Your task to perform on an android device: open sync settings in chrome Image 0: 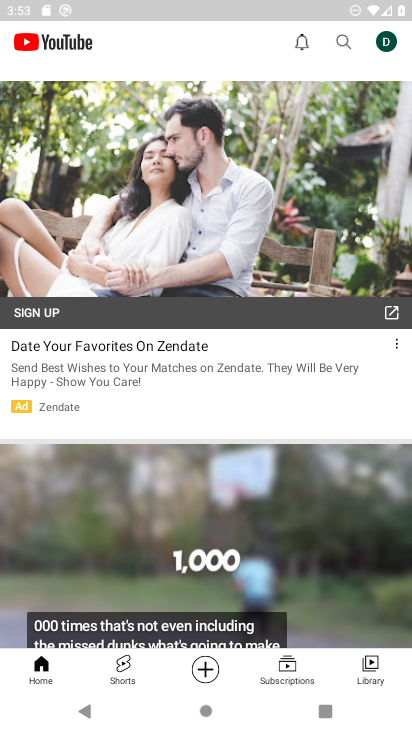
Step 0: press back button
Your task to perform on an android device: open sync settings in chrome Image 1: 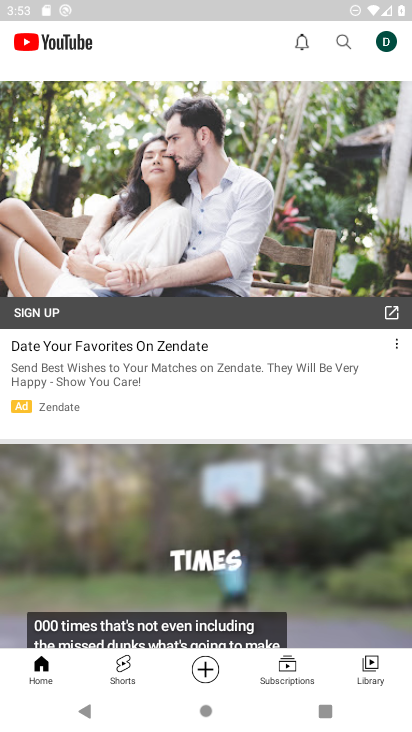
Step 1: press back button
Your task to perform on an android device: open sync settings in chrome Image 2: 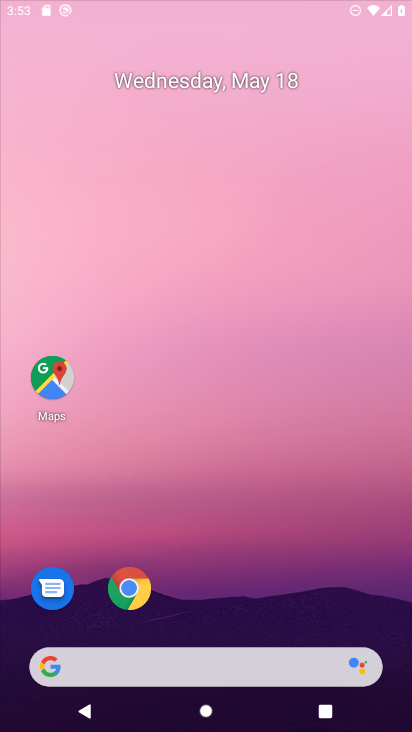
Step 2: press back button
Your task to perform on an android device: open sync settings in chrome Image 3: 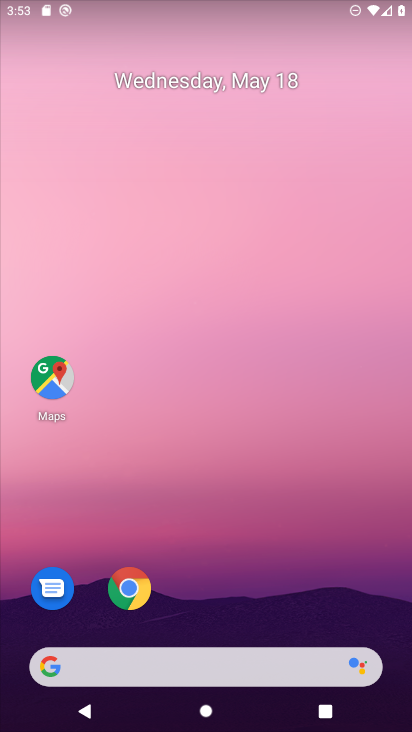
Step 3: click (142, 589)
Your task to perform on an android device: open sync settings in chrome Image 4: 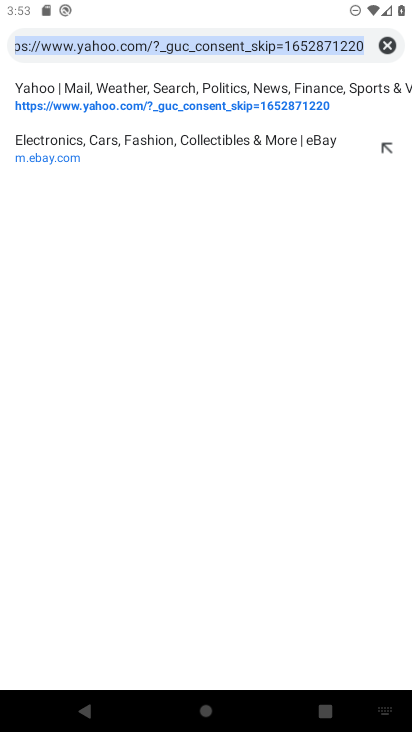
Step 4: click (386, 40)
Your task to perform on an android device: open sync settings in chrome Image 5: 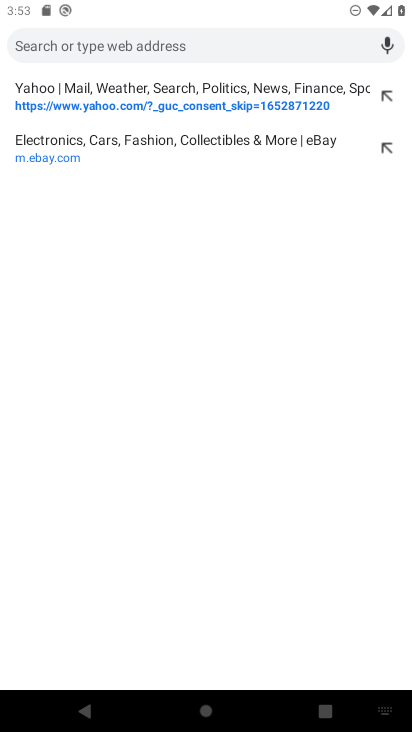
Step 5: click (386, 40)
Your task to perform on an android device: open sync settings in chrome Image 6: 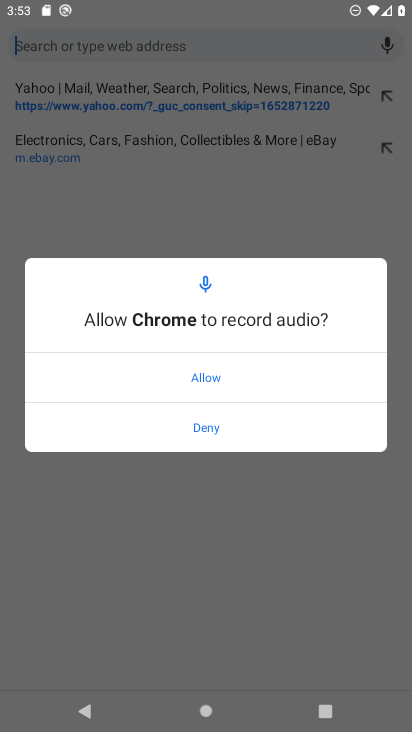
Step 6: click (76, 726)
Your task to perform on an android device: open sync settings in chrome Image 7: 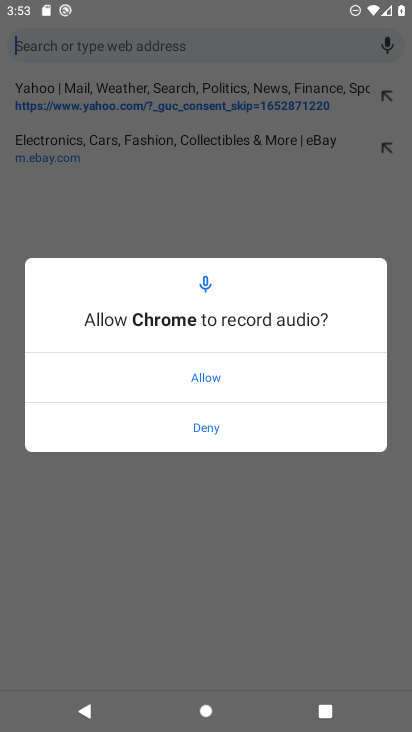
Step 7: click (58, 717)
Your task to perform on an android device: open sync settings in chrome Image 8: 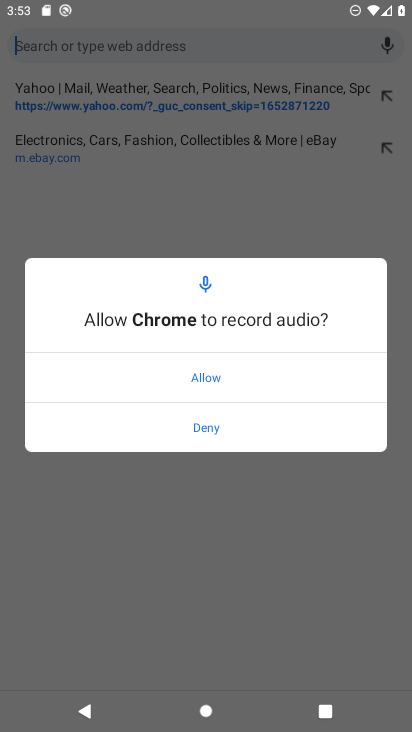
Step 8: click (59, 717)
Your task to perform on an android device: open sync settings in chrome Image 9: 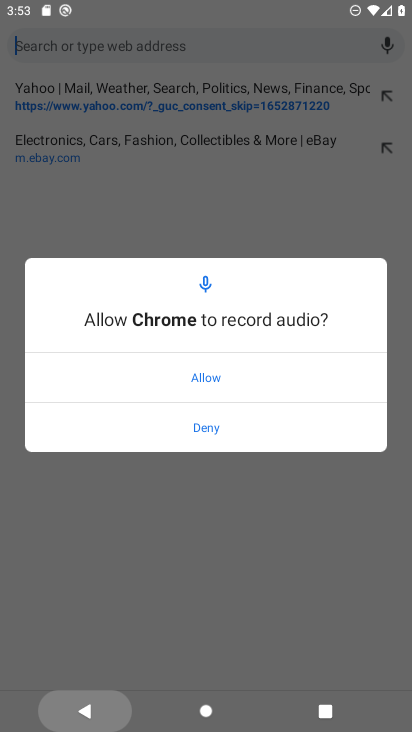
Step 9: click (60, 716)
Your task to perform on an android device: open sync settings in chrome Image 10: 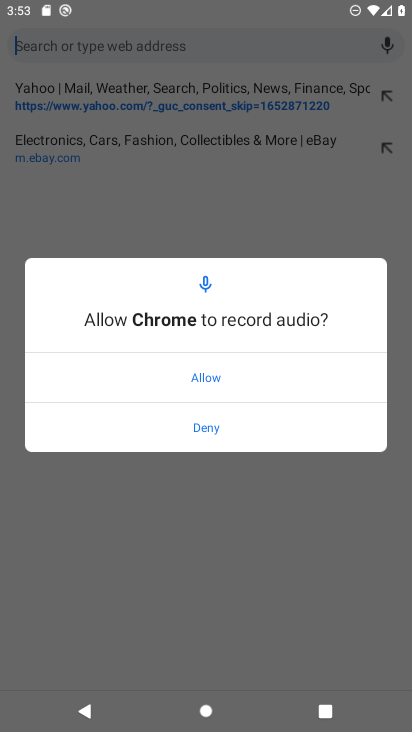
Step 10: click (218, 430)
Your task to perform on an android device: open sync settings in chrome Image 11: 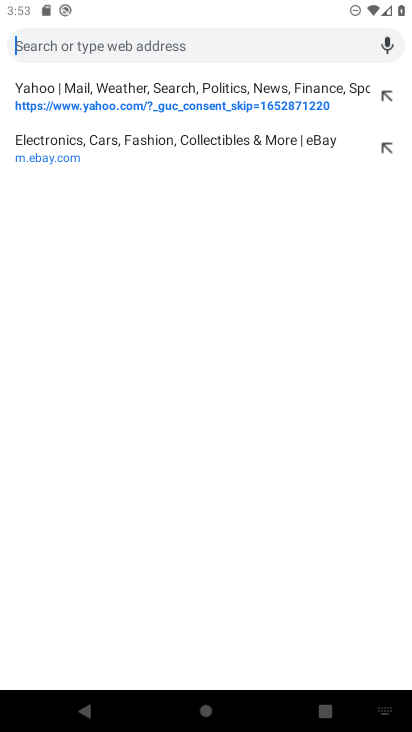
Step 11: click (84, 712)
Your task to perform on an android device: open sync settings in chrome Image 12: 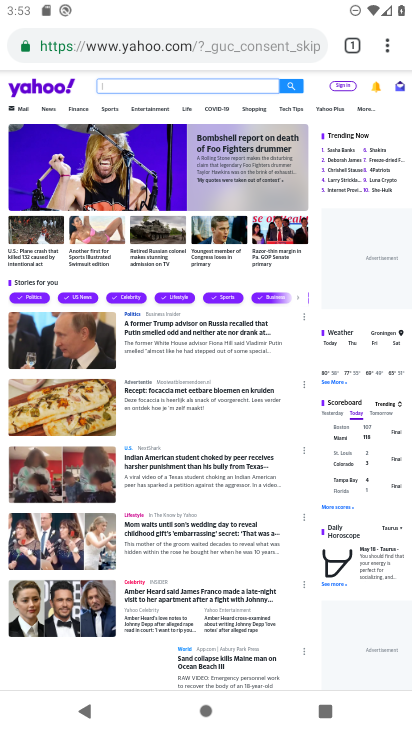
Step 12: click (399, 48)
Your task to perform on an android device: open sync settings in chrome Image 13: 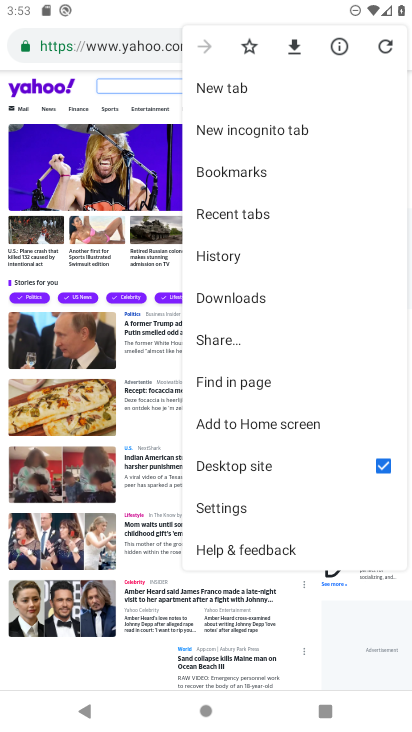
Step 13: click (243, 504)
Your task to perform on an android device: open sync settings in chrome Image 14: 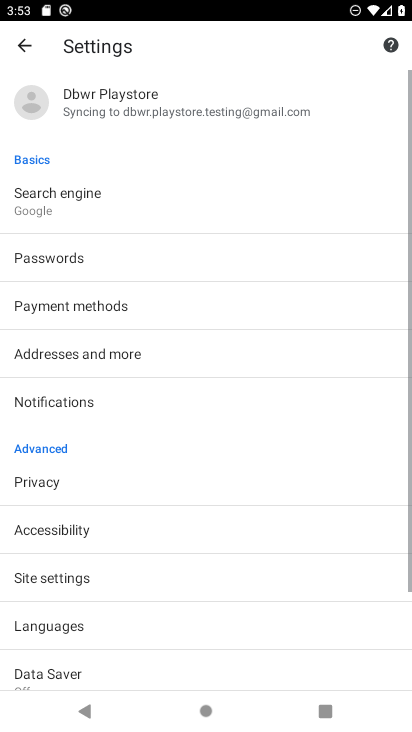
Step 14: click (127, 123)
Your task to perform on an android device: open sync settings in chrome Image 15: 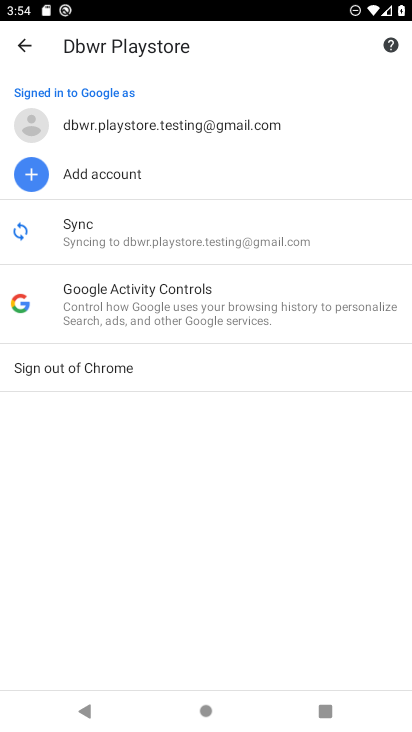
Step 15: click (114, 231)
Your task to perform on an android device: open sync settings in chrome Image 16: 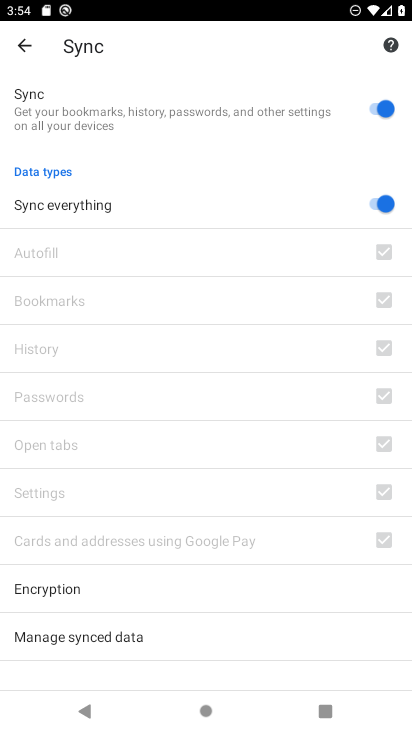
Step 16: task complete